Your task to perform on an android device: open device folders in google photos Image 0: 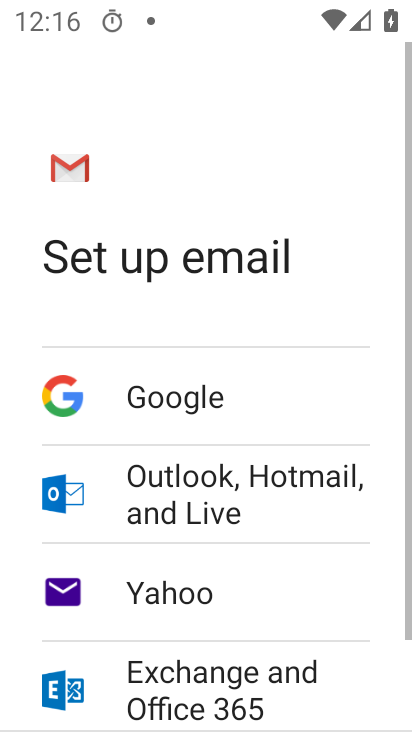
Step 0: press home button
Your task to perform on an android device: open device folders in google photos Image 1: 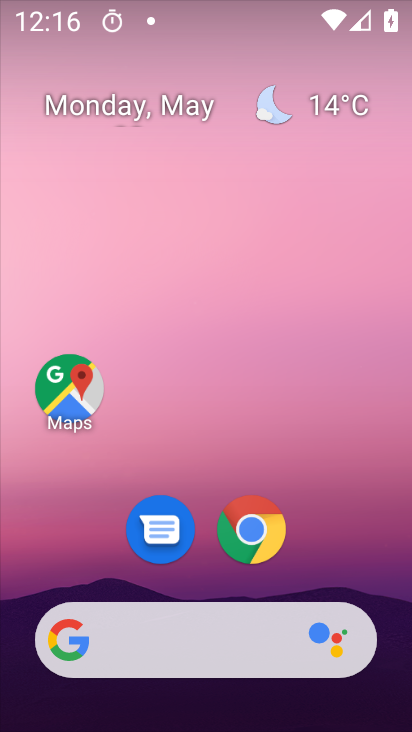
Step 1: drag from (384, 582) to (361, 213)
Your task to perform on an android device: open device folders in google photos Image 2: 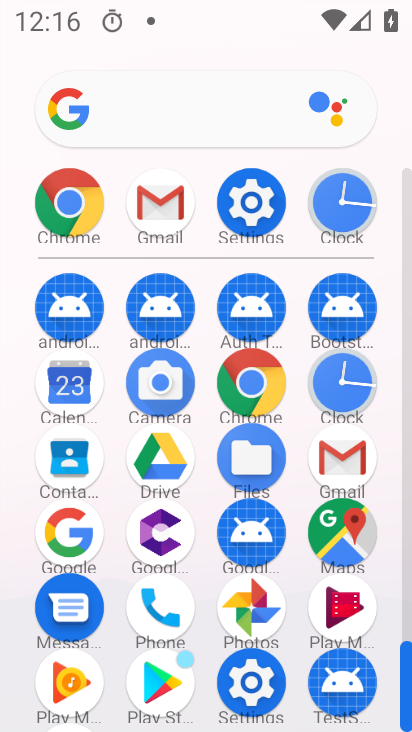
Step 2: click (262, 624)
Your task to perform on an android device: open device folders in google photos Image 3: 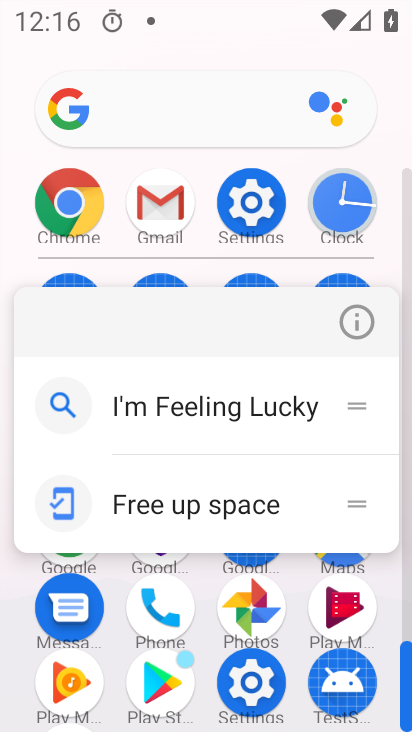
Step 3: click (262, 624)
Your task to perform on an android device: open device folders in google photos Image 4: 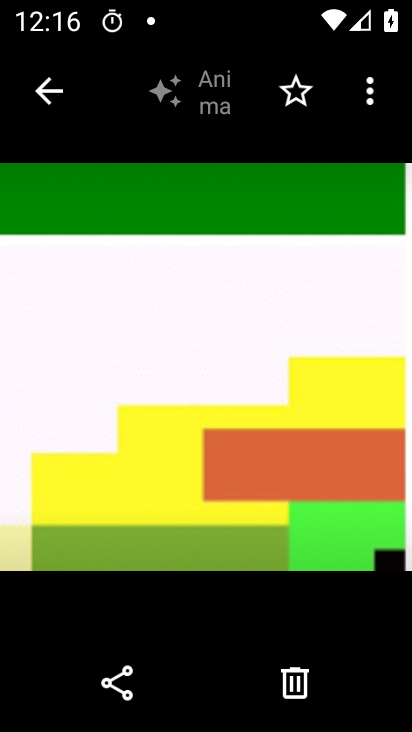
Step 4: click (56, 104)
Your task to perform on an android device: open device folders in google photos Image 5: 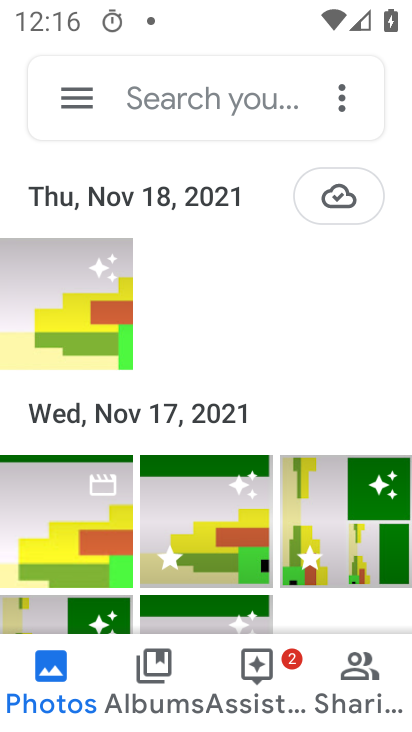
Step 5: click (88, 106)
Your task to perform on an android device: open device folders in google photos Image 6: 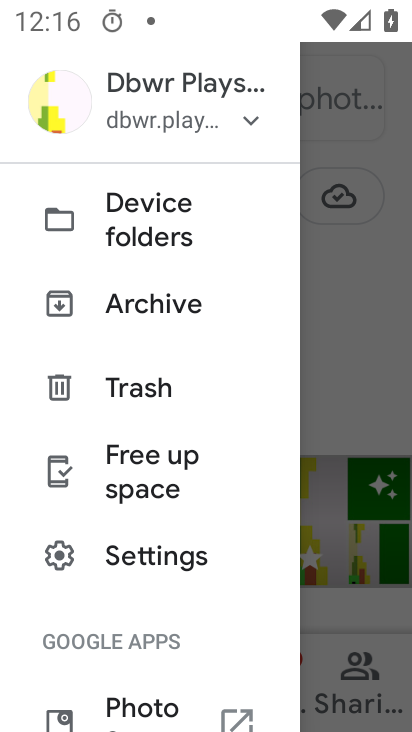
Step 6: drag from (239, 567) to (243, 471)
Your task to perform on an android device: open device folders in google photos Image 7: 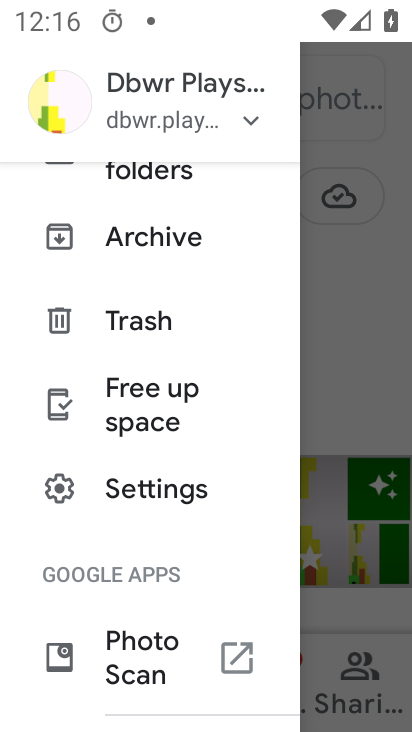
Step 7: drag from (241, 609) to (249, 493)
Your task to perform on an android device: open device folders in google photos Image 8: 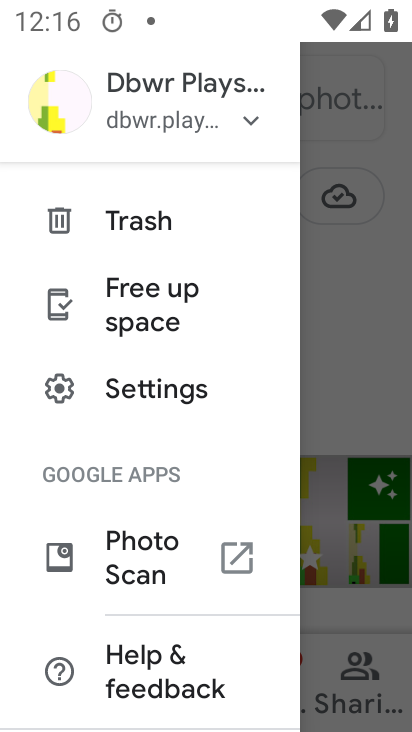
Step 8: drag from (245, 631) to (250, 529)
Your task to perform on an android device: open device folders in google photos Image 9: 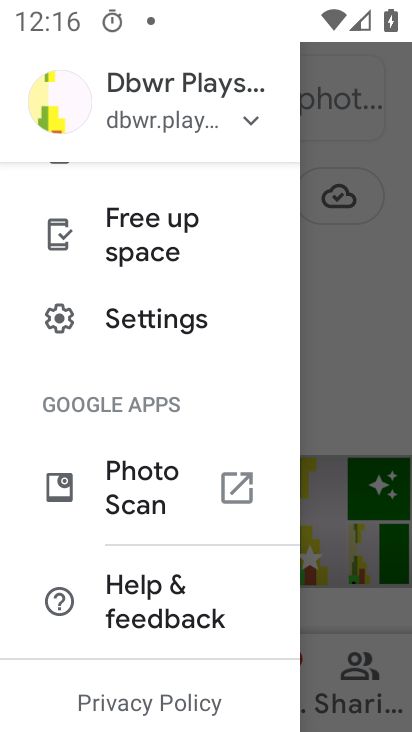
Step 9: drag from (238, 679) to (253, 530)
Your task to perform on an android device: open device folders in google photos Image 10: 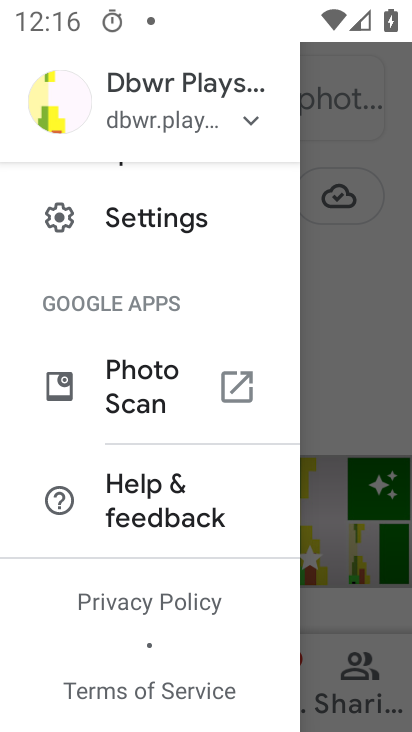
Step 10: drag from (253, 665) to (257, 523)
Your task to perform on an android device: open device folders in google photos Image 11: 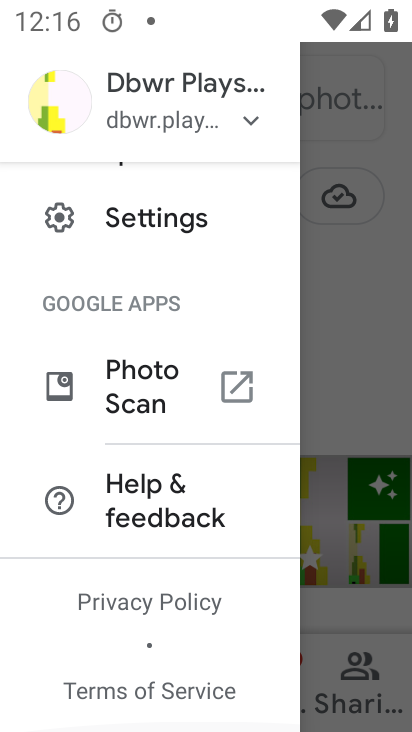
Step 11: drag from (259, 448) to (259, 565)
Your task to perform on an android device: open device folders in google photos Image 12: 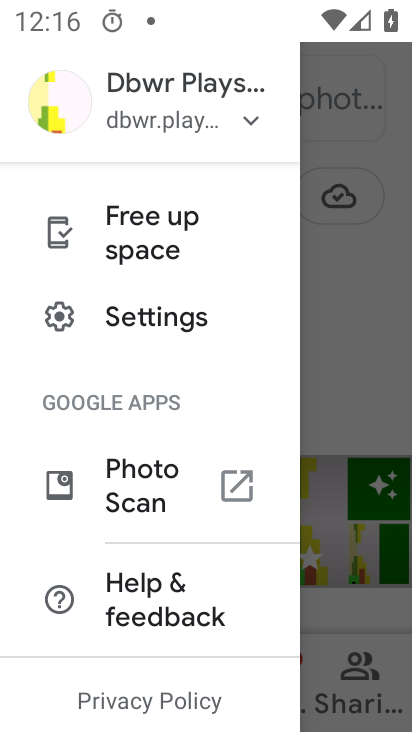
Step 12: drag from (272, 457) to (274, 532)
Your task to perform on an android device: open device folders in google photos Image 13: 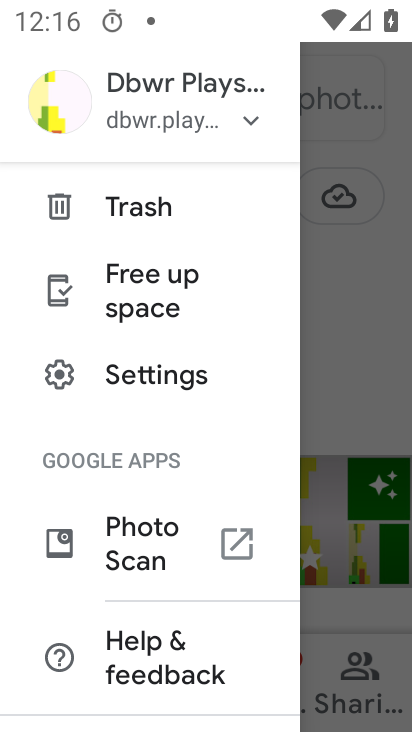
Step 13: drag from (272, 462) to (266, 542)
Your task to perform on an android device: open device folders in google photos Image 14: 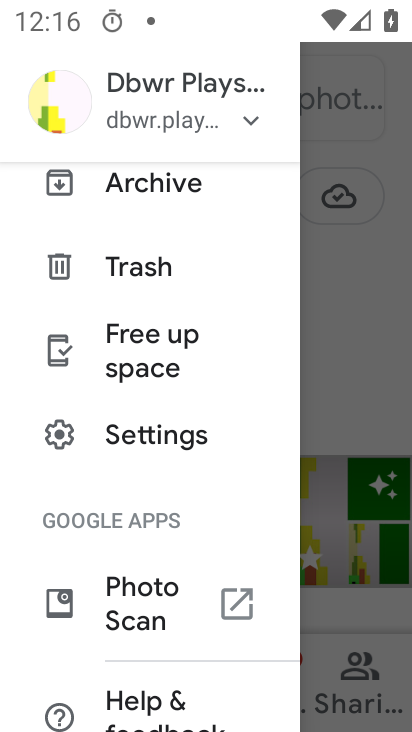
Step 14: drag from (271, 414) to (269, 510)
Your task to perform on an android device: open device folders in google photos Image 15: 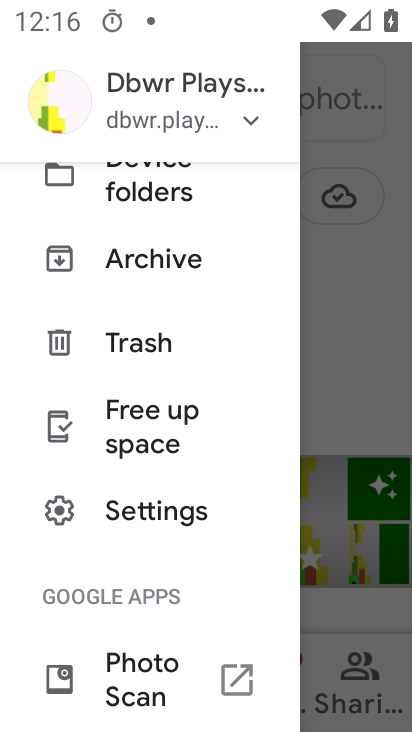
Step 15: drag from (262, 385) to (261, 481)
Your task to perform on an android device: open device folders in google photos Image 16: 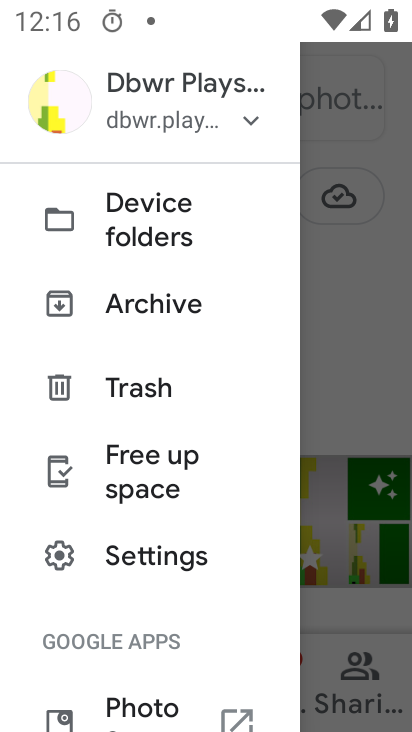
Step 16: drag from (263, 348) to (267, 447)
Your task to perform on an android device: open device folders in google photos Image 17: 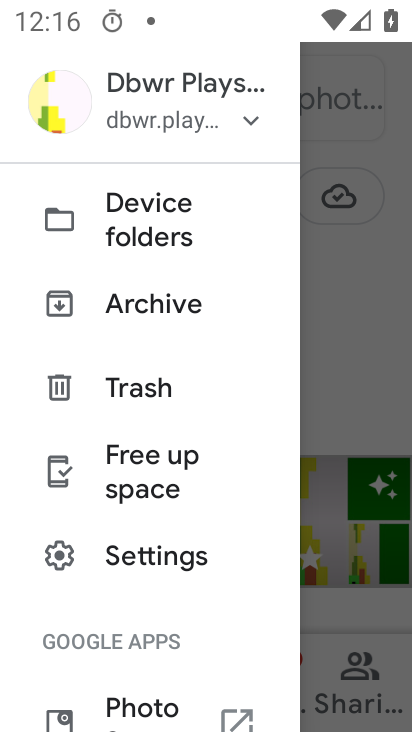
Step 17: click (216, 222)
Your task to perform on an android device: open device folders in google photos Image 18: 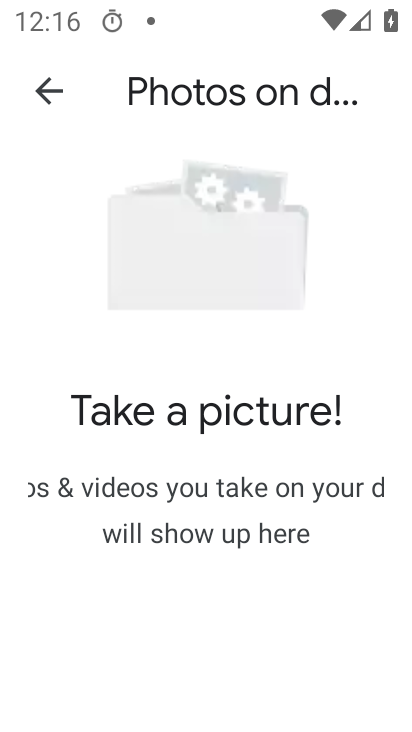
Step 18: task complete